Your task to perform on an android device: Add "bose soundsport free" to the cart on costco.com, then select checkout. Image 0: 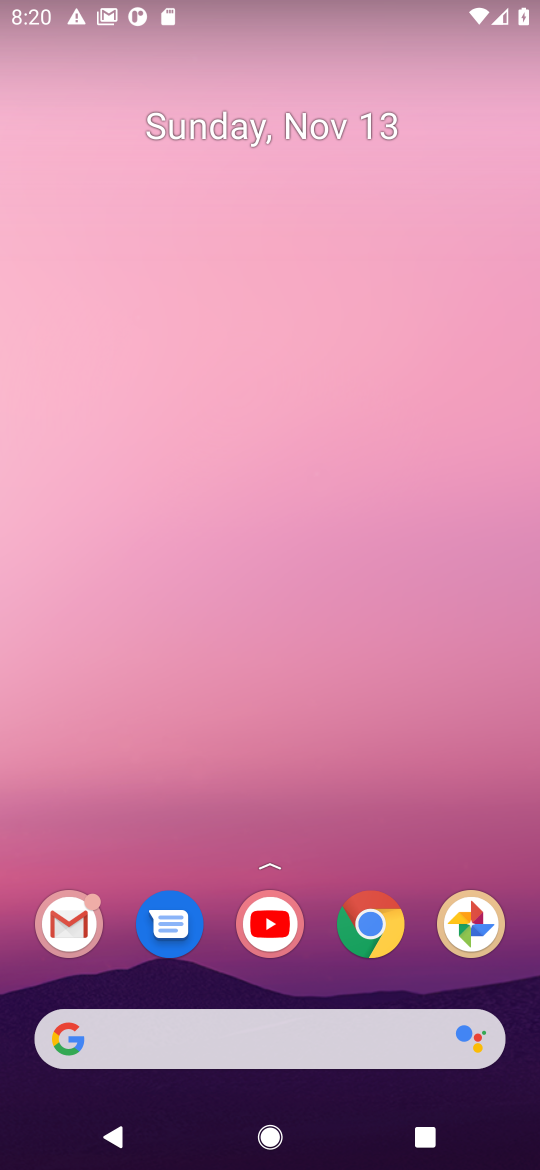
Step 0: click (372, 935)
Your task to perform on an android device: Add "bose soundsport free" to the cart on costco.com, then select checkout. Image 1: 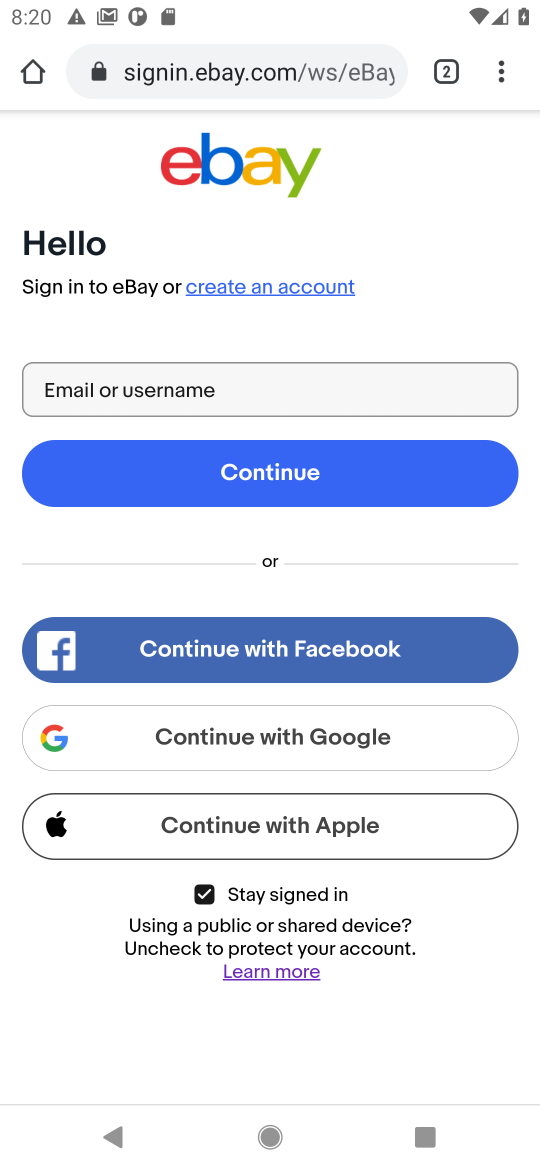
Step 1: click (231, 81)
Your task to perform on an android device: Add "bose soundsport free" to the cart on costco.com, then select checkout. Image 2: 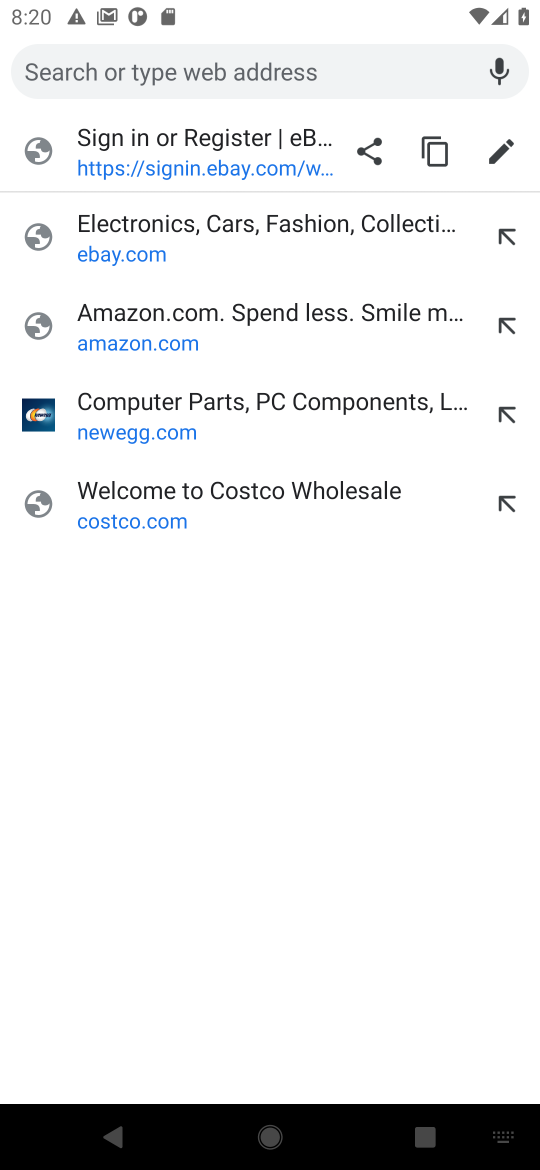
Step 2: click (150, 495)
Your task to perform on an android device: Add "bose soundsport free" to the cart on costco.com, then select checkout. Image 3: 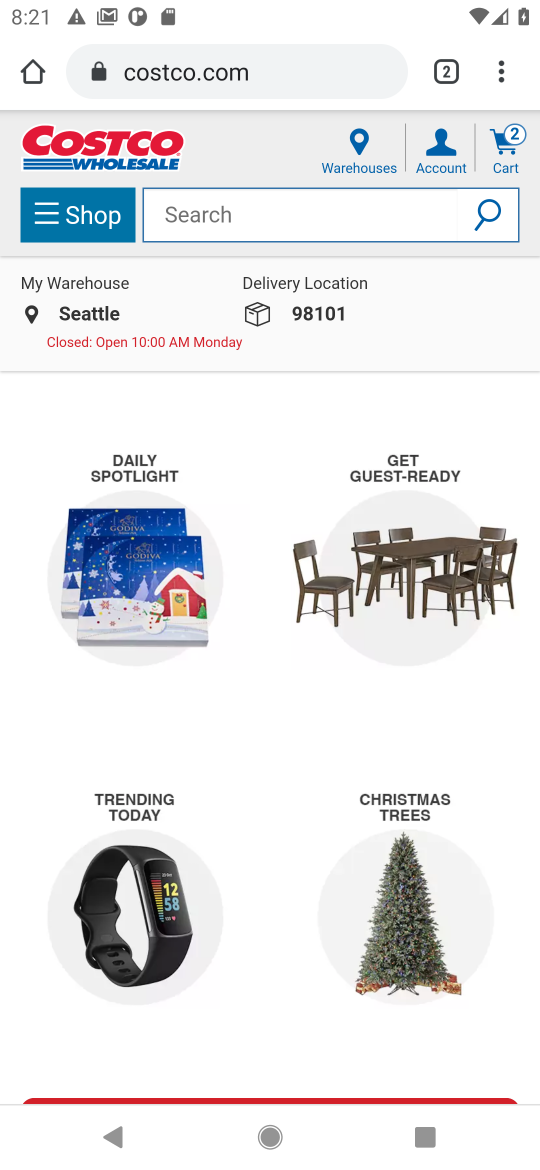
Step 3: click (265, 203)
Your task to perform on an android device: Add "bose soundsport free" to the cart on costco.com, then select checkout. Image 4: 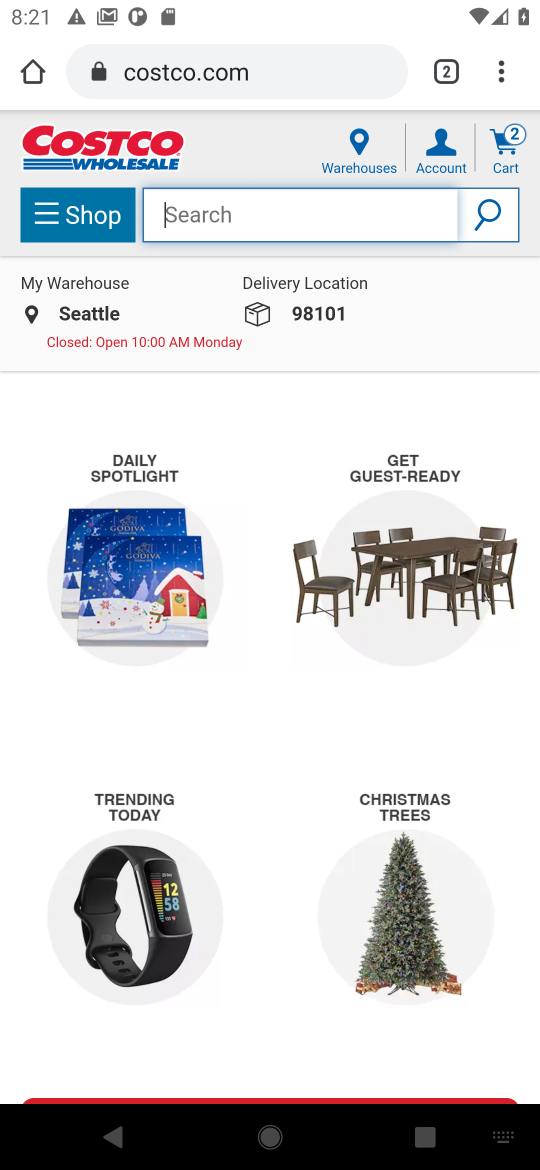
Step 4: type "bose soundsport free"
Your task to perform on an android device: Add "bose soundsport free" to the cart on costco.com, then select checkout. Image 5: 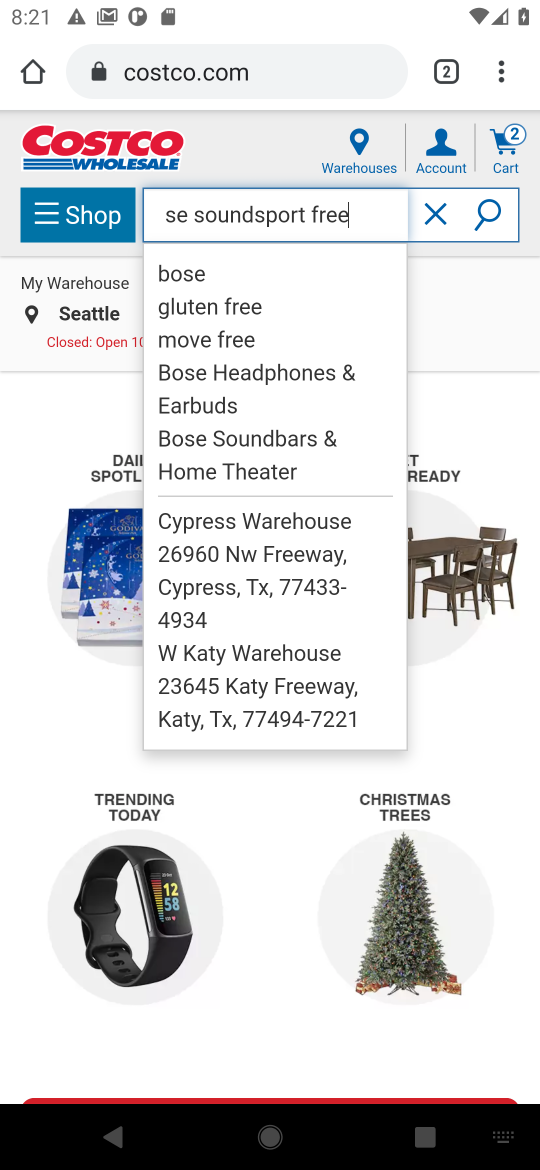
Step 5: click (485, 212)
Your task to perform on an android device: Add "bose soundsport free" to the cart on costco.com, then select checkout. Image 6: 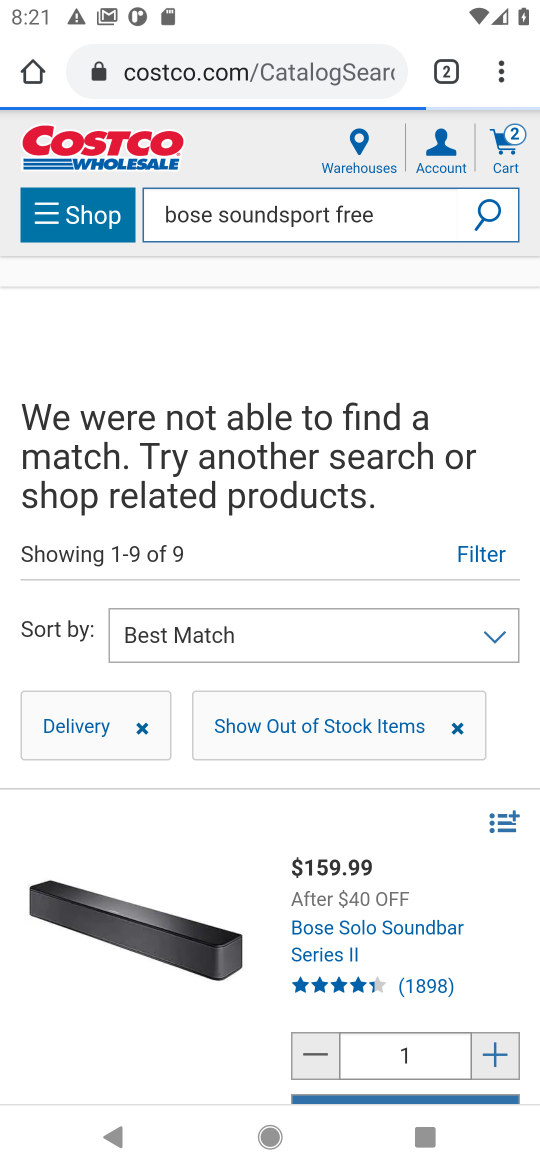
Step 6: task complete